Your task to perform on an android device: change timer sound Image 0: 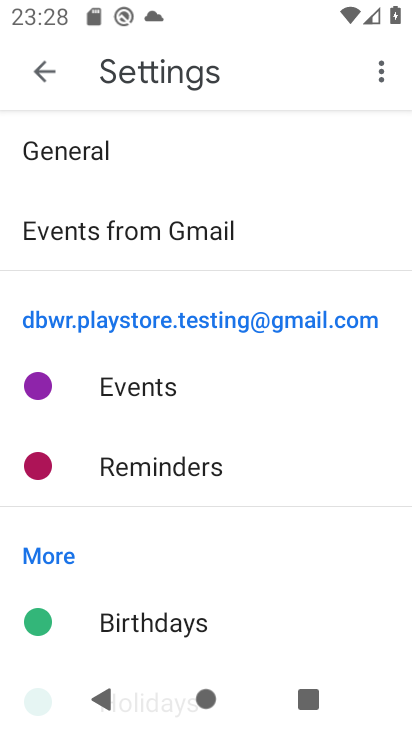
Step 0: press home button
Your task to perform on an android device: change timer sound Image 1: 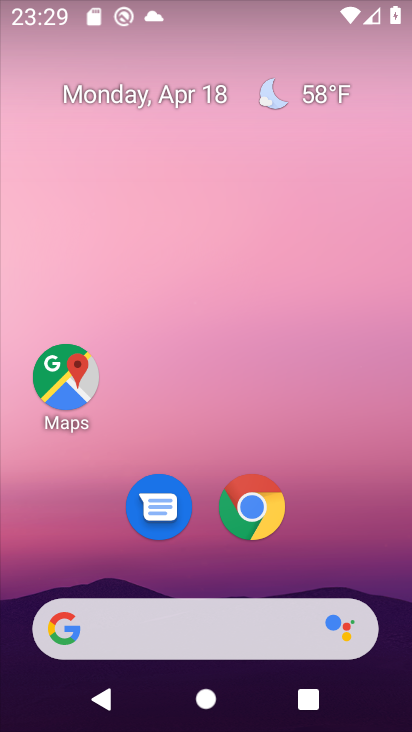
Step 1: drag from (274, 561) to (323, 47)
Your task to perform on an android device: change timer sound Image 2: 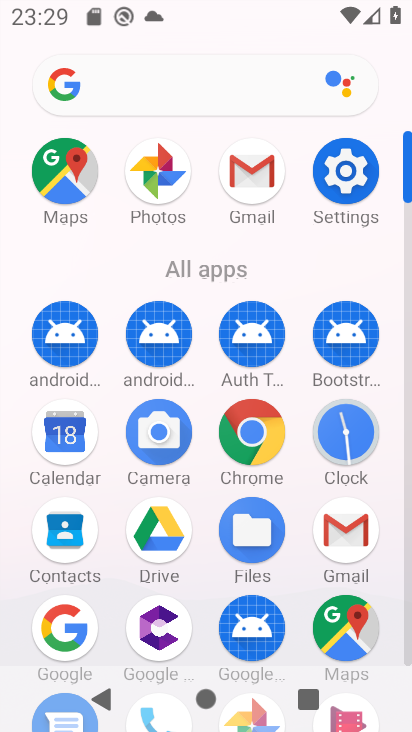
Step 2: click (342, 435)
Your task to perform on an android device: change timer sound Image 3: 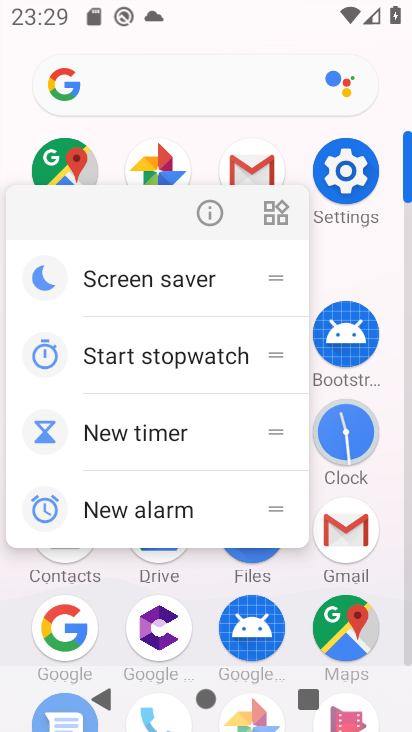
Step 3: click (365, 444)
Your task to perform on an android device: change timer sound Image 4: 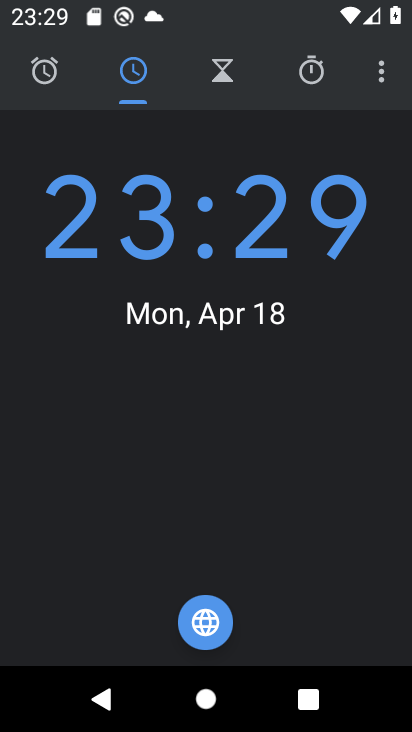
Step 4: click (373, 75)
Your task to perform on an android device: change timer sound Image 5: 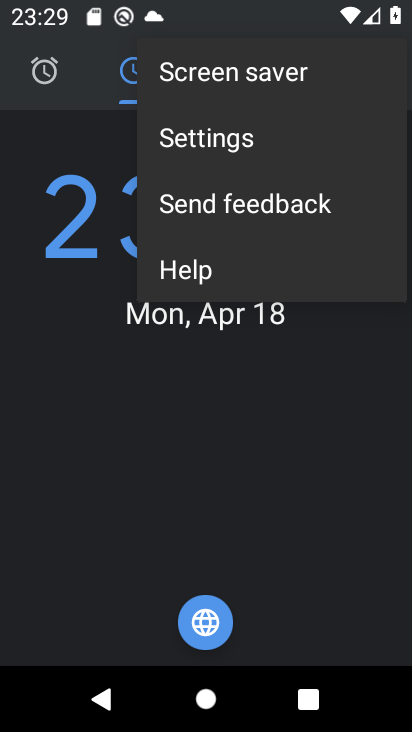
Step 5: click (255, 150)
Your task to perform on an android device: change timer sound Image 6: 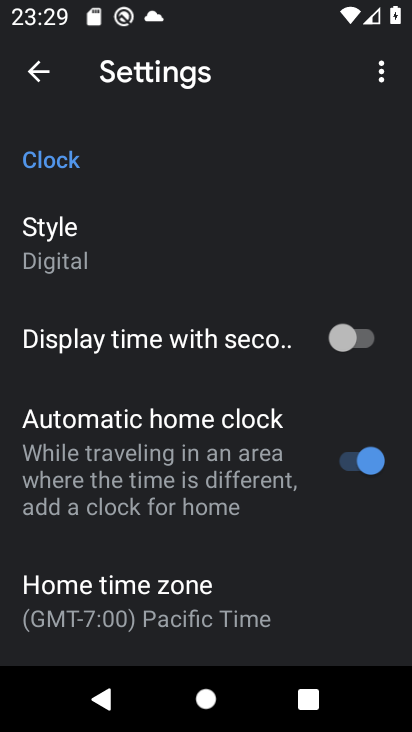
Step 6: drag from (123, 537) to (226, 140)
Your task to perform on an android device: change timer sound Image 7: 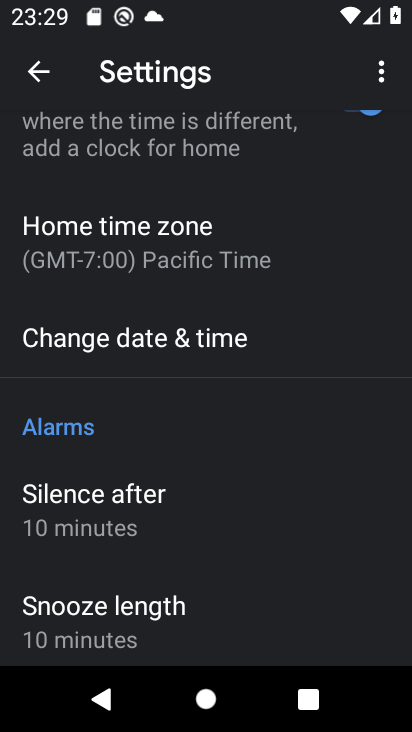
Step 7: drag from (135, 468) to (245, 86)
Your task to perform on an android device: change timer sound Image 8: 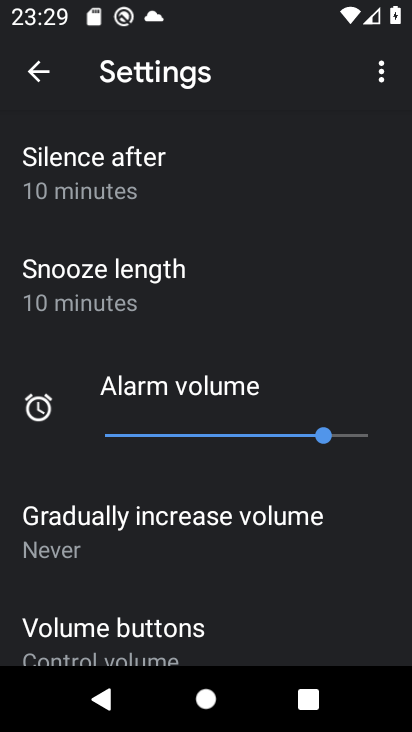
Step 8: drag from (139, 533) to (235, 118)
Your task to perform on an android device: change timer sound Image 9: 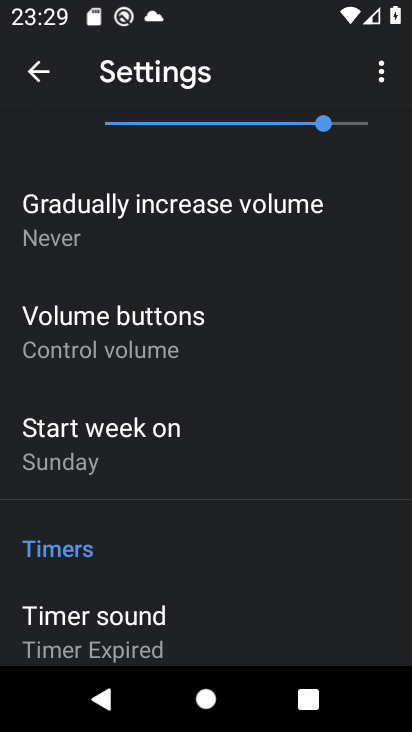
Step 9: click (94, 626)
Your task to perform on an android device: change timer sound Image 10: 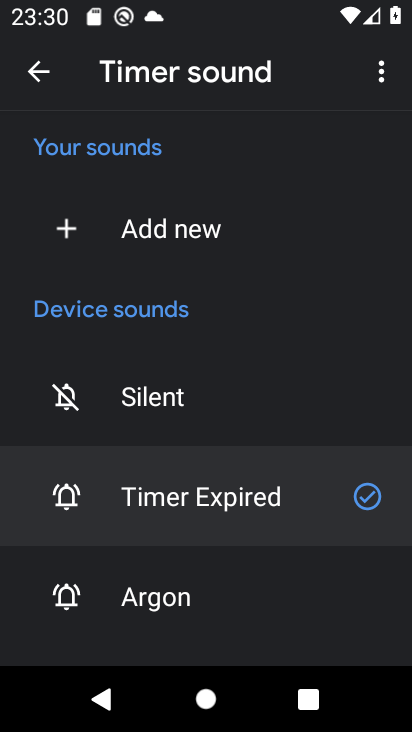
Step 10: click (178, 598)
Your task to perform on an android device: change timer sound Image 11: 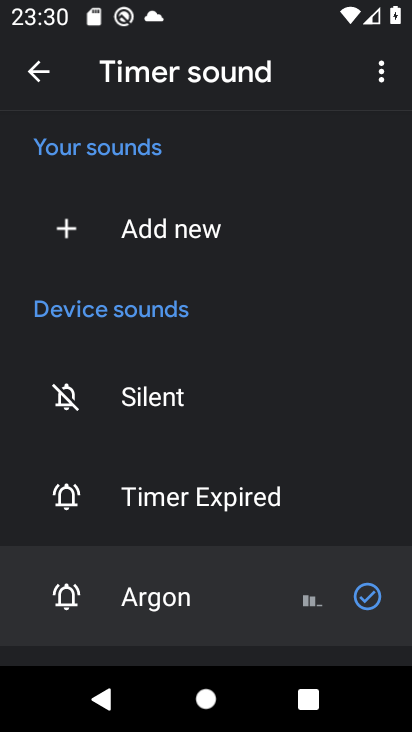
Step 11: task complete